Your task to perform on an android device: change keyboard looks Image 0: 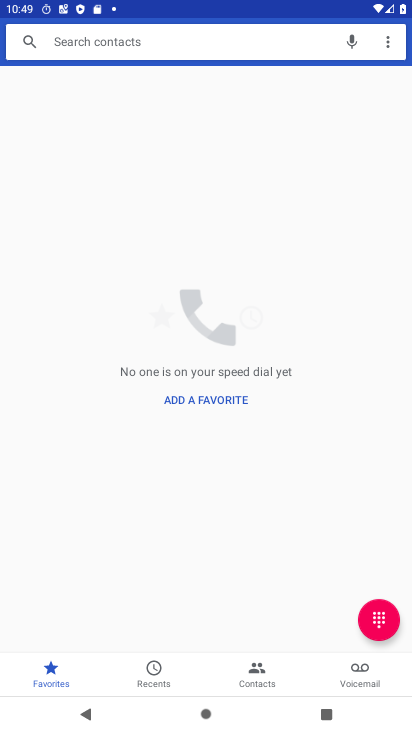
Step 0: press home button
Your task to perform on an android device: change keyboard looks Image 1: 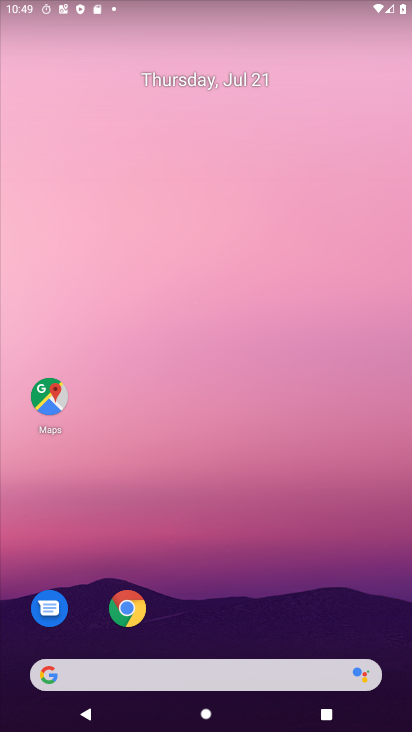
Step 1: drag from (189, 570) to (220, 126)
Your task to perform on an android device: change keyboard looks Image 2: 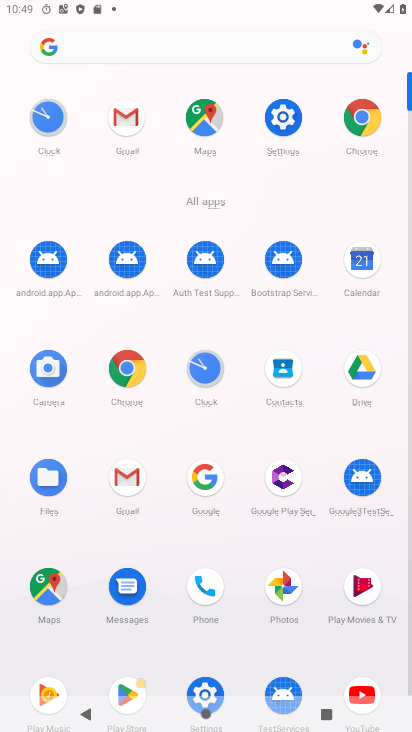
Step 2: click (279, 116)
Your task to perform on an android device: change keyboard looks Image 3: 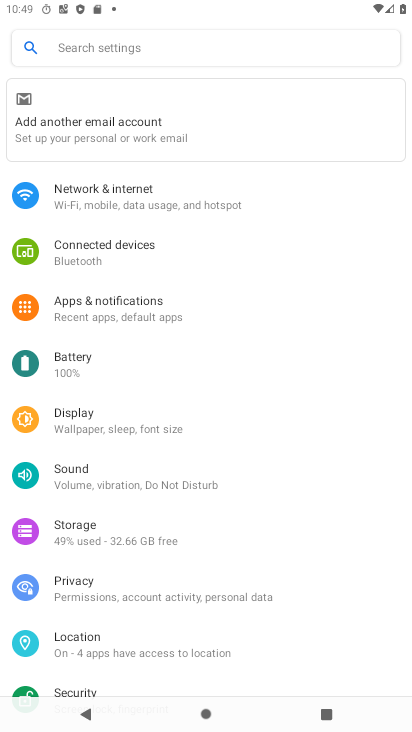
Step 3: drag from (211, 553) to (188, 350)
Your task to perform on an android device: change keyboard looks Image 4: 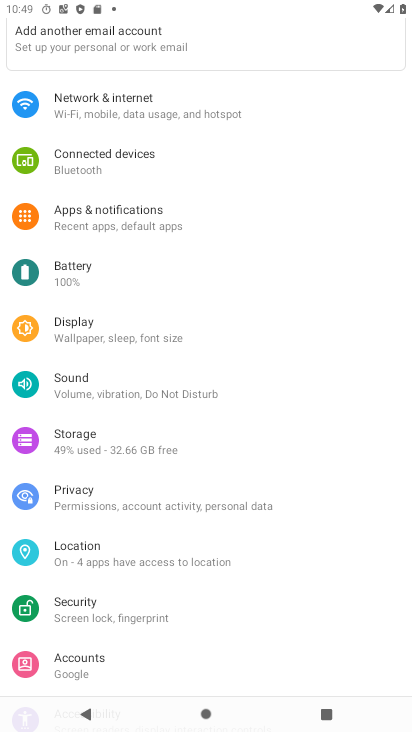
Step 4: drag from (105, 617) to (105, 314)
Your task to perform on an android device: change keyboard looks Image 5: 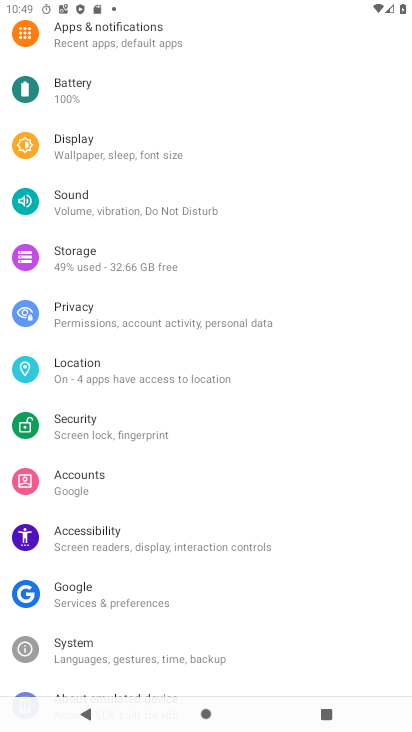
Step 5: click (111, 293)
Your task to perform on an android device: change keyboard looks Image 6: 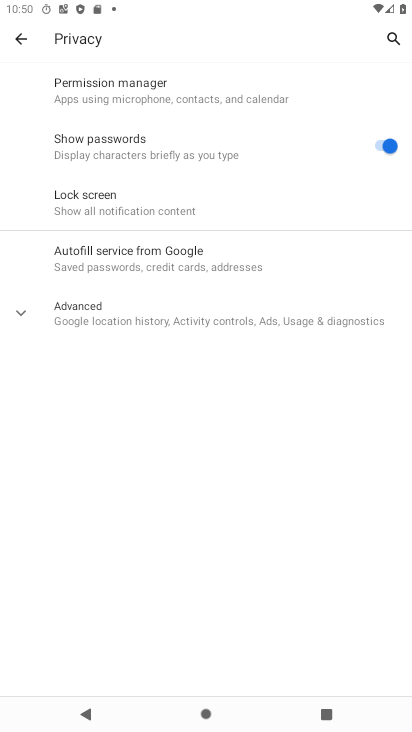
Step 6: click (76, 318)
Your task to perform on an android device: change keyboard looks Image 7: 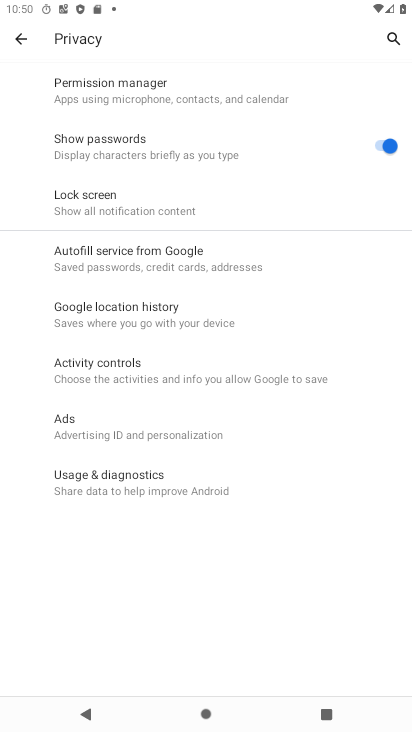
Step 7: click (22, 41)
Your task to perform on an android device: change keyboard looks Image 8: 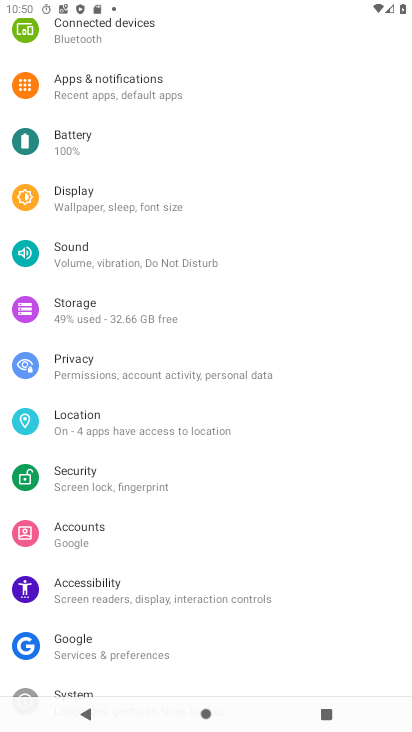
Step 8: click (45, 690)
Your task to perform on an android device: change keyboard looks Image 9: 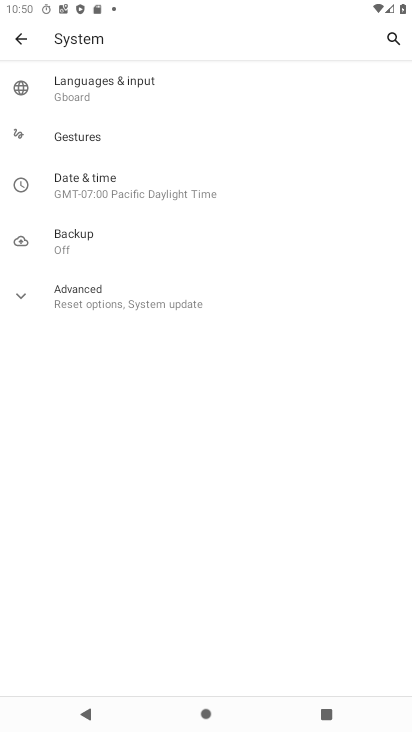
Step 9: click (81, 85)
Your task to perform on an android device: change keyboard looks Image 10: 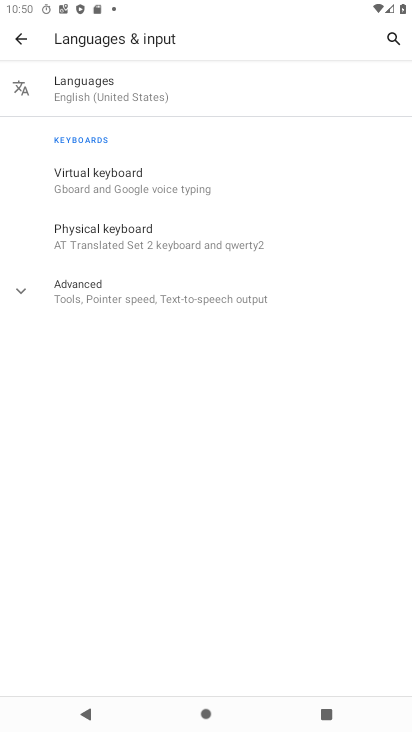
Step 10: click (54, 215)
Your task to perform on an android device: change keyboard looks Image 11: 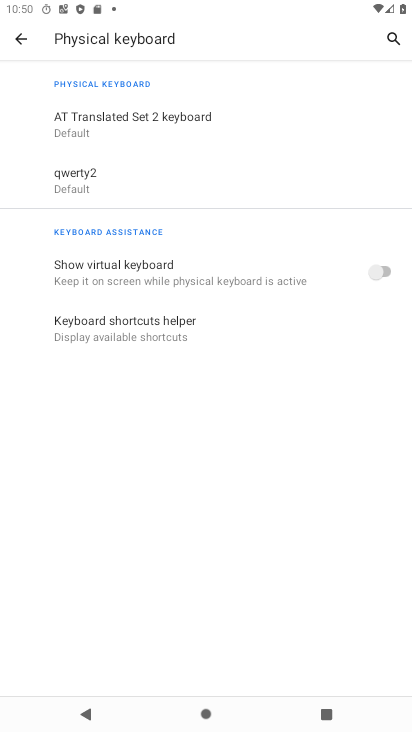
Step 11: click (22, 36)
Your task to perform on an android device: change keyboard looks Image 12: 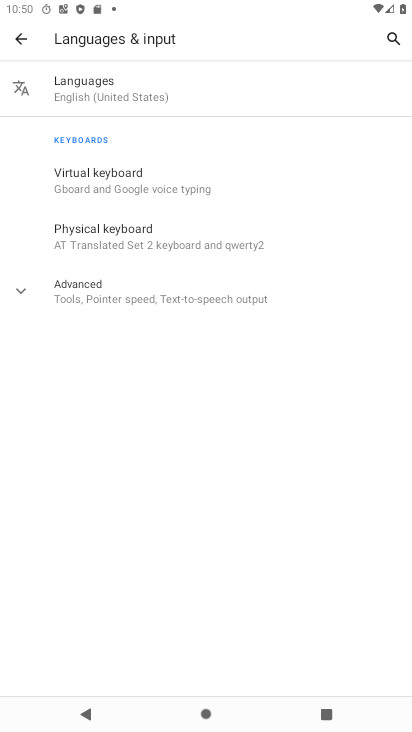
Step 12: click (102, 165)
Your task to perform on an android device: change keyboard looks Image 13: 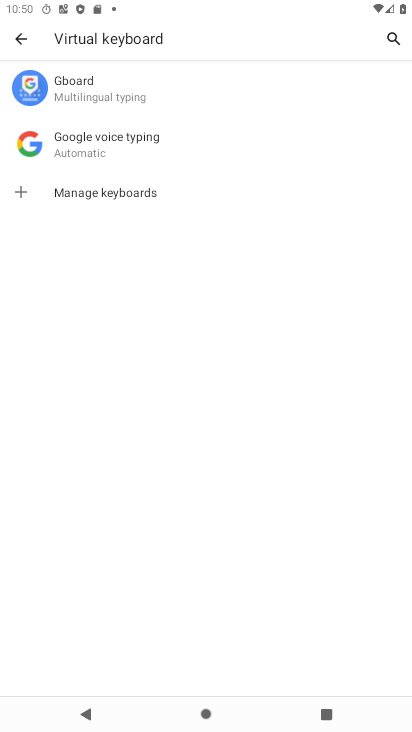
Step 13: click (69, 93)
Your task to perform on an android device: change keyboard looks Image 14: 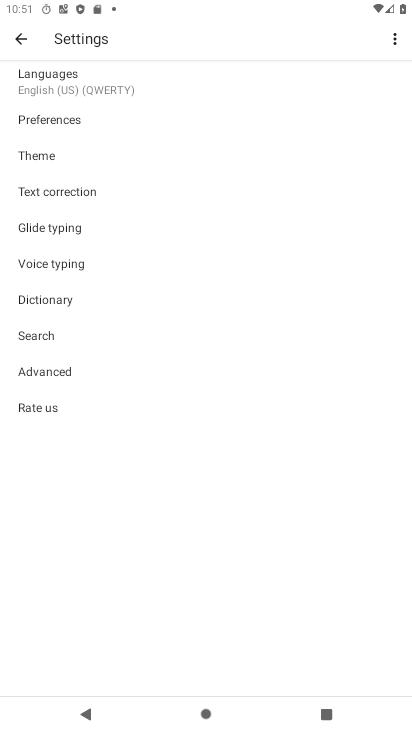
Step 14: click (19, 156)
Your task to perform on an android device: change keyboard looks Image 15: 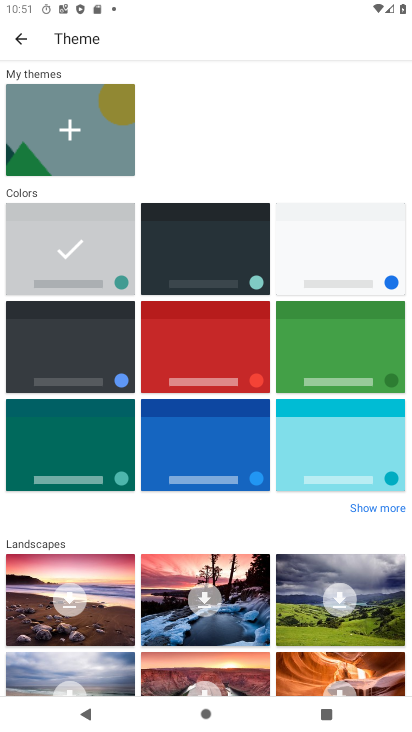
Step 15: click (218, 241)
Your task to perform on an android device: change keyboard looks Image 16: 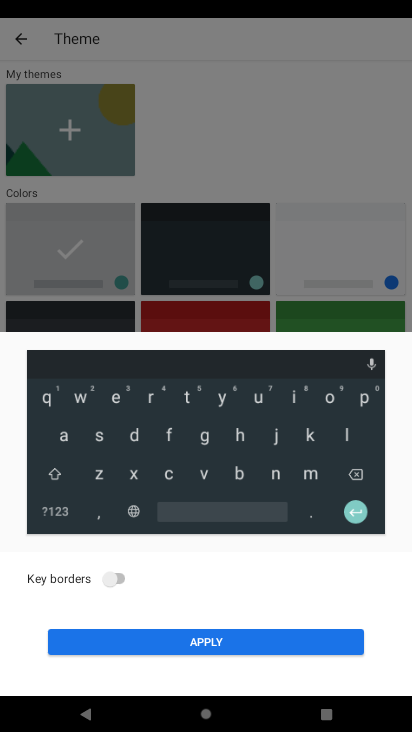
Step 16: click (187, 639)
Your task to perform on an android device: change keyboard looks Image 17: 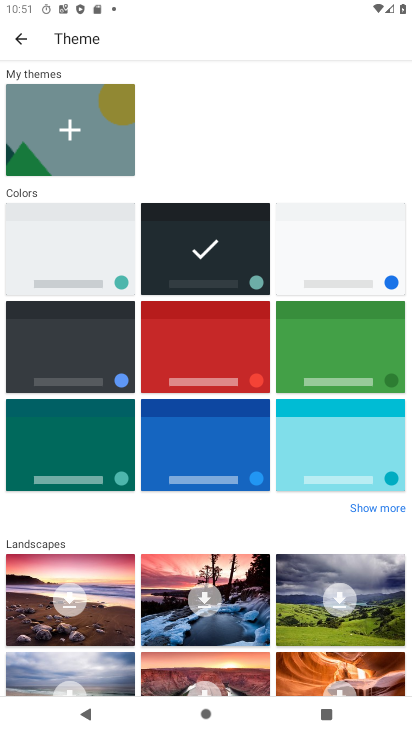
Step 17: task complete